Your task to perform on an android device: set the timer Image 0: 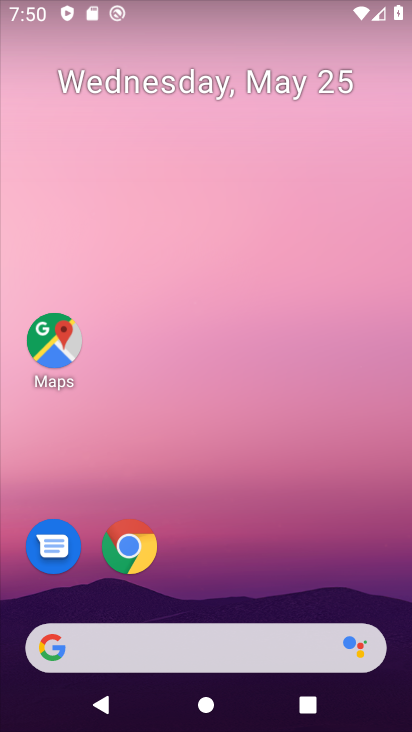
Step 0: drag from (256, 557) to (333, 74)
Your task to perform on an android device: set the timer Image 1: 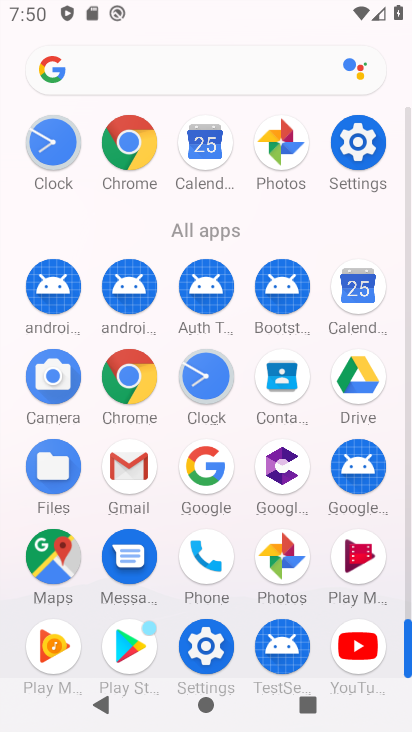
Step 1: click (197, 392)
Your task to perform on an android device: set the timer Image 2: 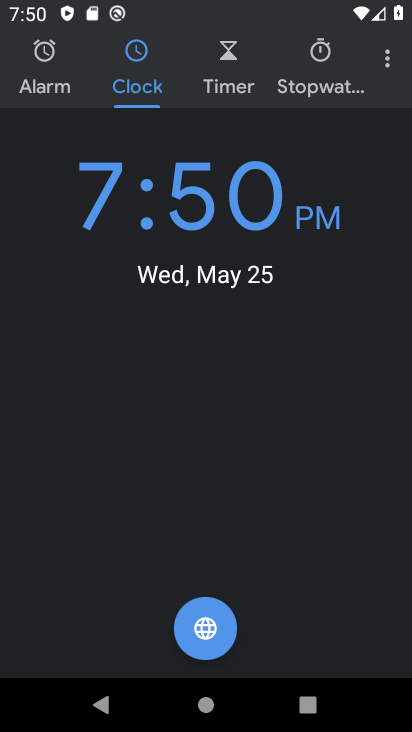
Step 2: click (249, 65)
Your task to perform on an android device: set the timer Image 3: 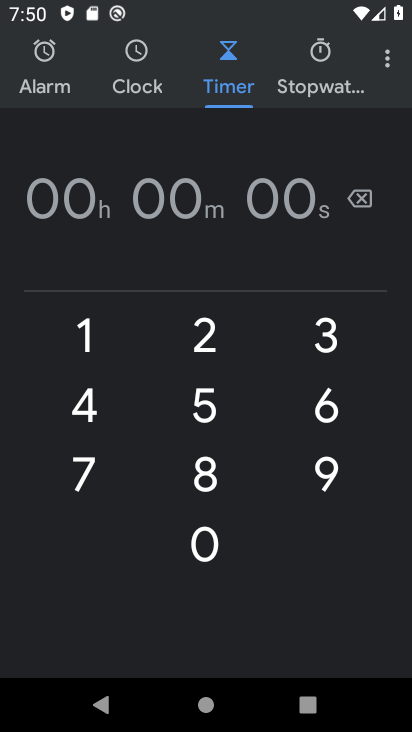
Step 3: click (194, 342)
Your task to perform on an android device: set the timer Image 4: 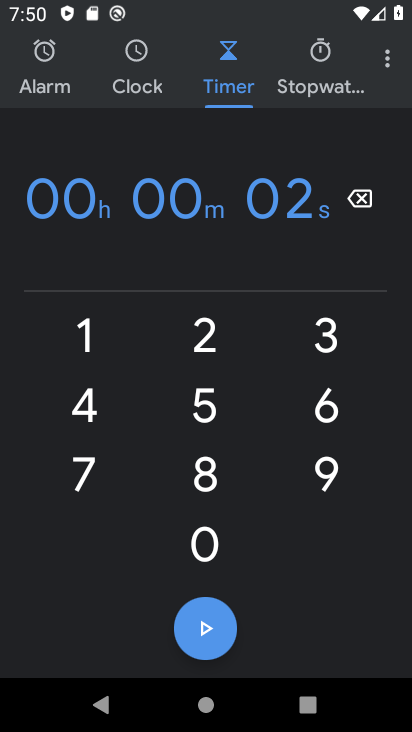
Step 4: click (191, 558)
Your task to perform on an android device: set the timer Image 5: 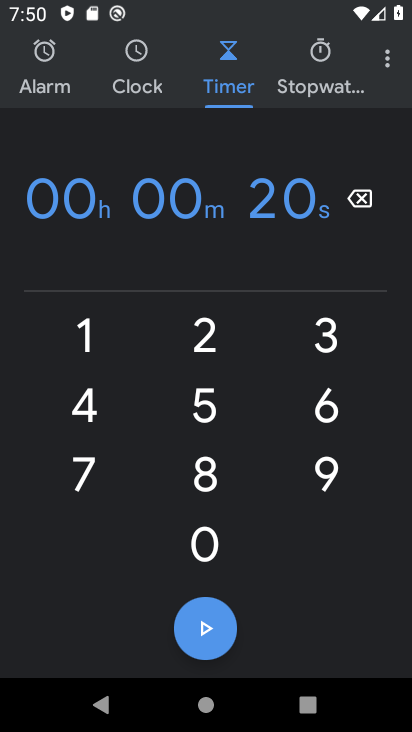
Step 5: click (83, 351)
Your task to perform on an android device: set the timer Image 6: 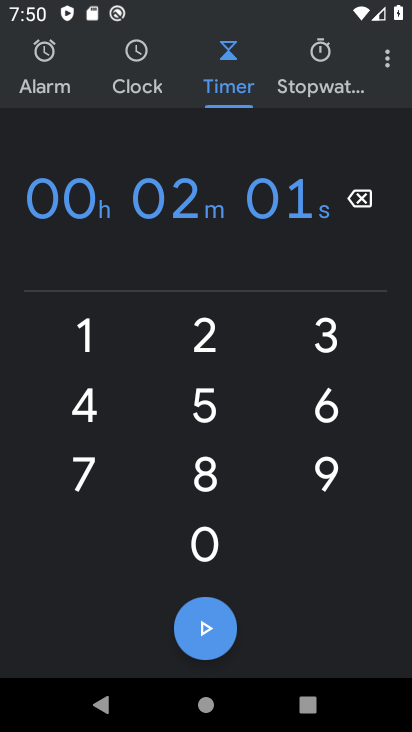
Step 6: click (211, 550)
Your task to perform on an android device: set the timer Image 7: 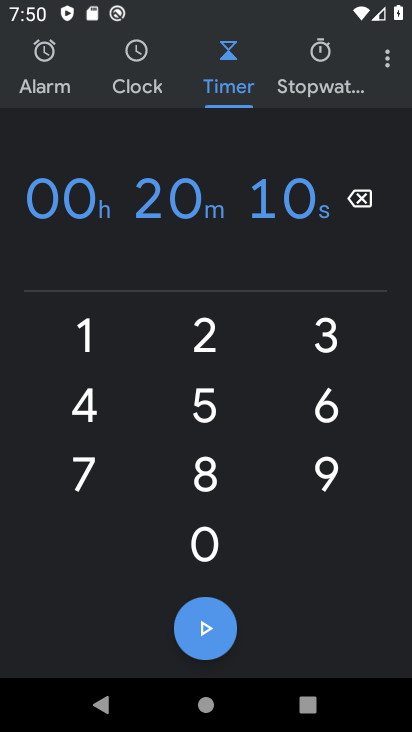
Step 7: click (206, 634)
Your task to perform on an android device: set the timer Image 8: 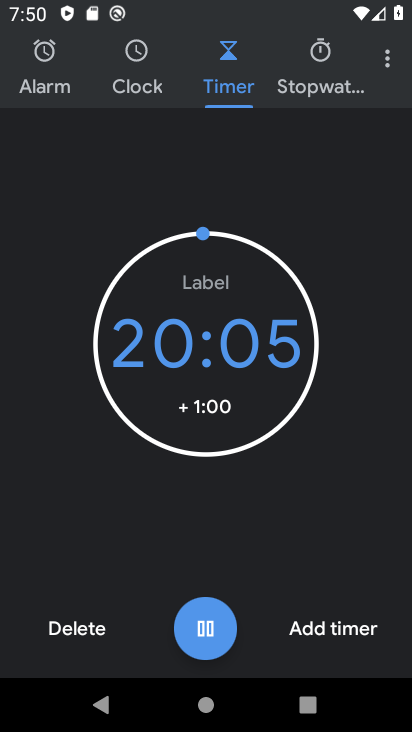
Step 8: click (322, 626)
Your task to perform on an android device: set the timer Image 9: 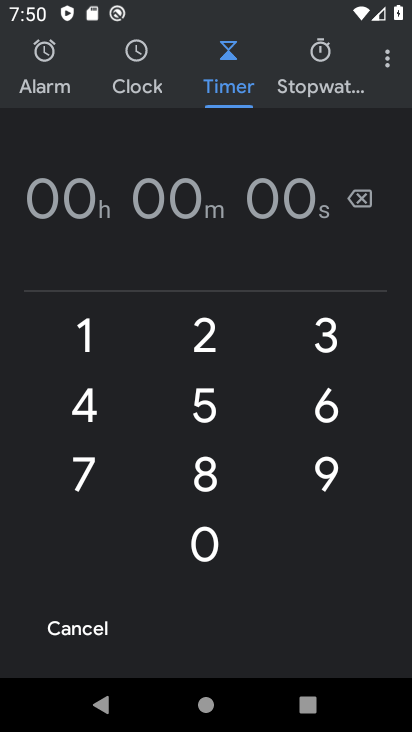
Step 9: task complete